Your task to perform on an android device: change the clock display to show seconds Image 0: 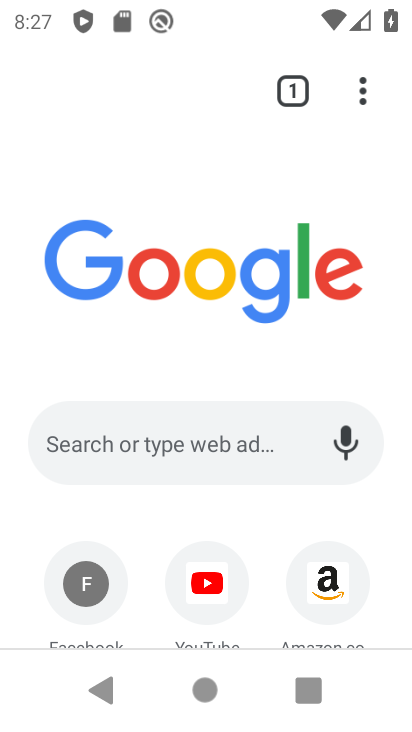
Step 0: press home button
Your task to perform on an android device: change the clock display to show seconds Image 1: 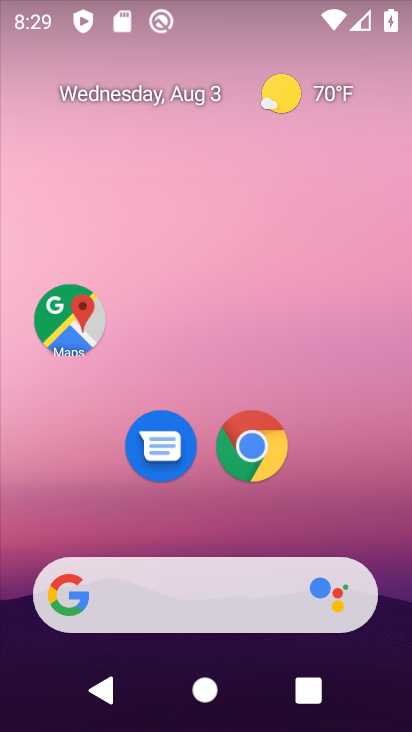
Step 1: drag from (400, 696) to (318, 87)
Your task to perform on an android device: change the clock display to show seconds Image 2: 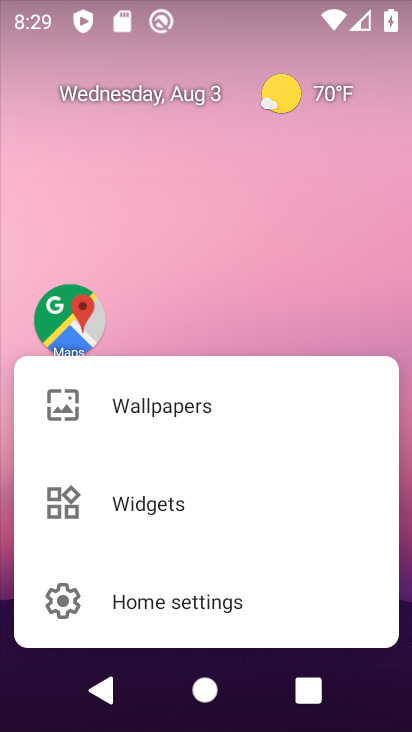
Step 2: press back button
Your task to perform on an android device: change the clock display to show seconds Image 3: 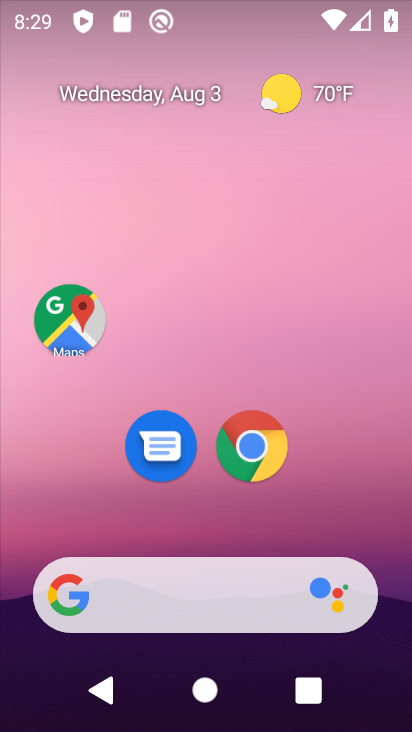
Step 3: drag from (392, 708) to (301, 87)
Your task to perform on an android device: change the clock display to show seconds Image 4: 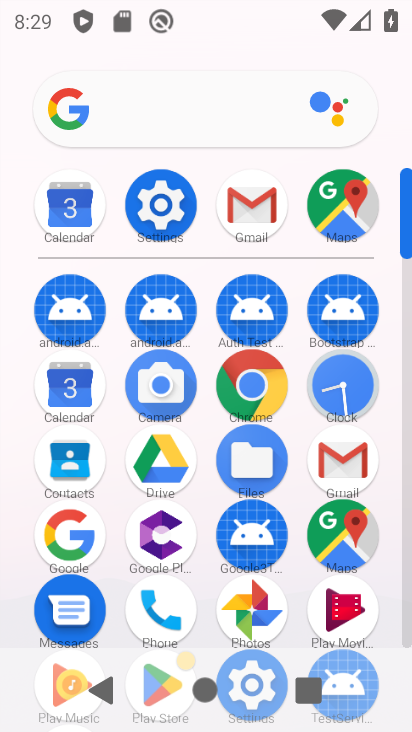
Step 4: click (326, 386)
Your task to perform on an android device: change the clock display to show seconds Image 5: 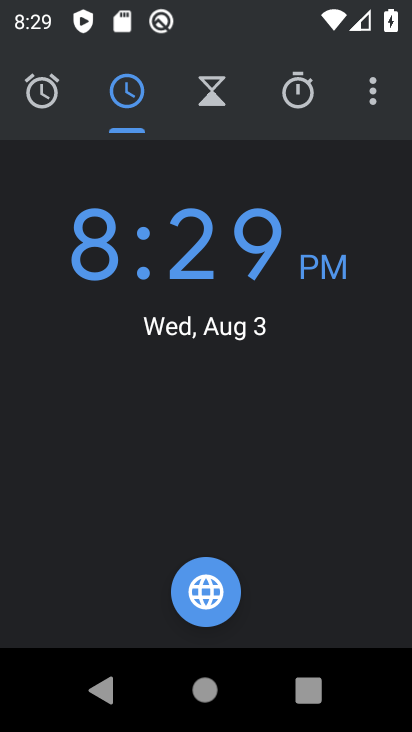
Step 5: click (371, 90)
Your task to perform on an android device: change the clock display to show seconds Image 6: 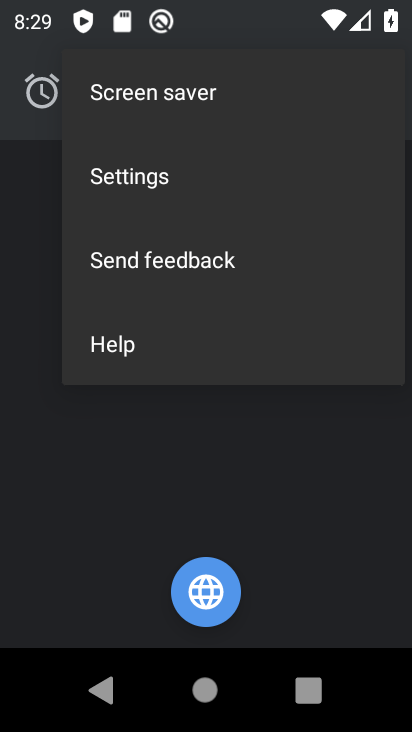
Step 6: click (102, 168)
Your task to perform on an android device: change the clock display to show seconds Image 7: 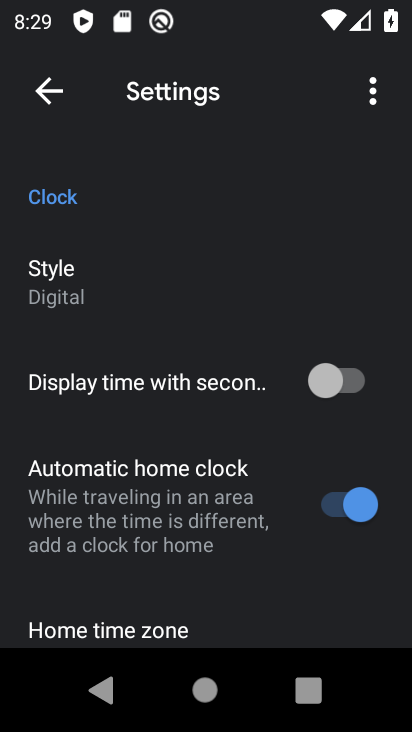
Step 7: click (58, 286)
Your task to perform on an android device: change the clock display to show seconds Image 8: 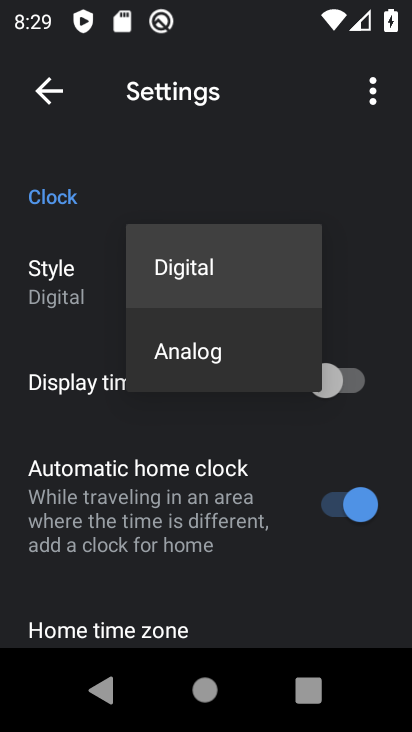
Step 8: click (168, 174)
Your task to perform on an android device: change the clock display to show seconds Image 9: 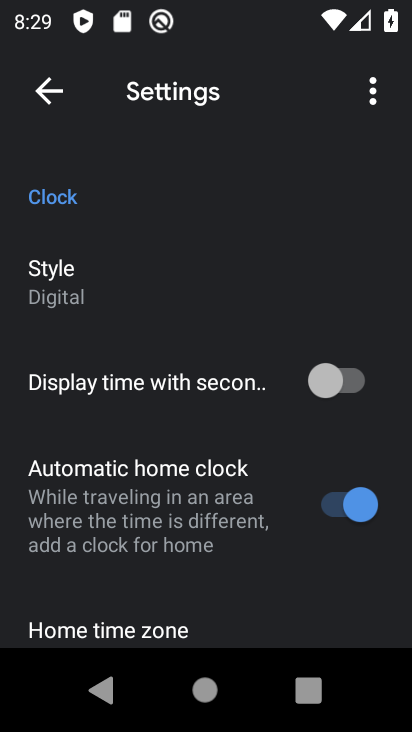
Step 9: click (357, 385)
Your task to perform on an android device: change the clock display to show seconds Image 10: 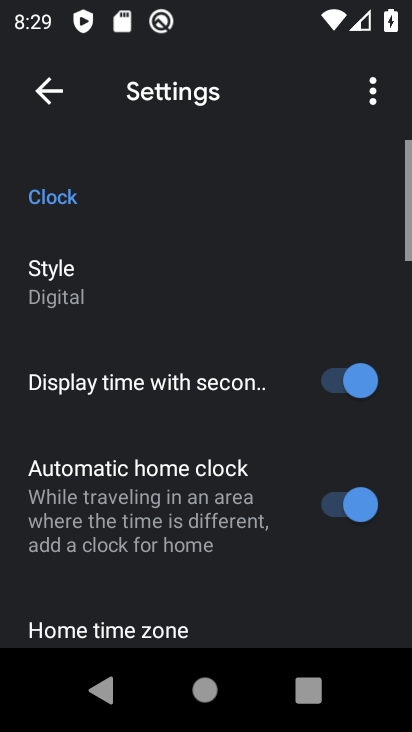
Step 10: task complete